Your task to perform on an android device: add a contact Image 0: 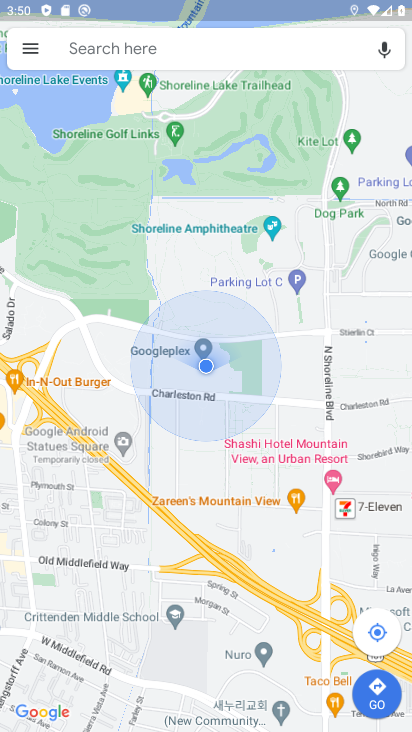
Step 0: press home button
Your task to perform on an android device: add a contact Image 1: 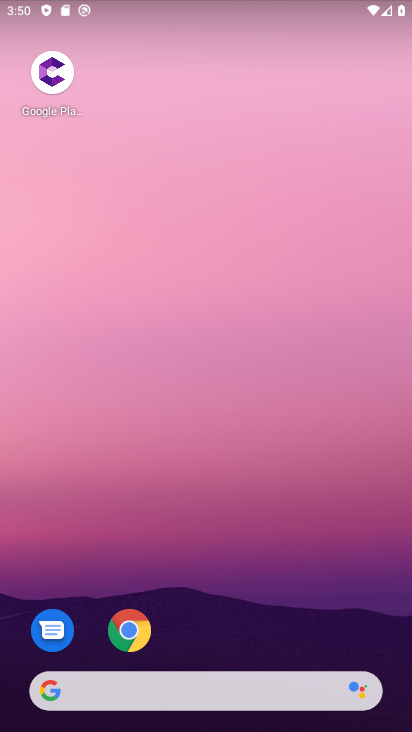
Step 1: drag from (219, 722) to (229, 224)
Your task to perform on an android device: add a contact Image 2: 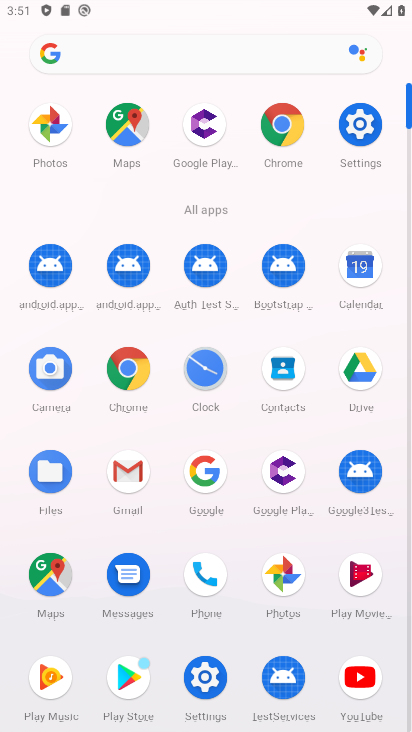
Step 2: click (277, 368)
Your task to perform on an android device: add a contact Image 3: 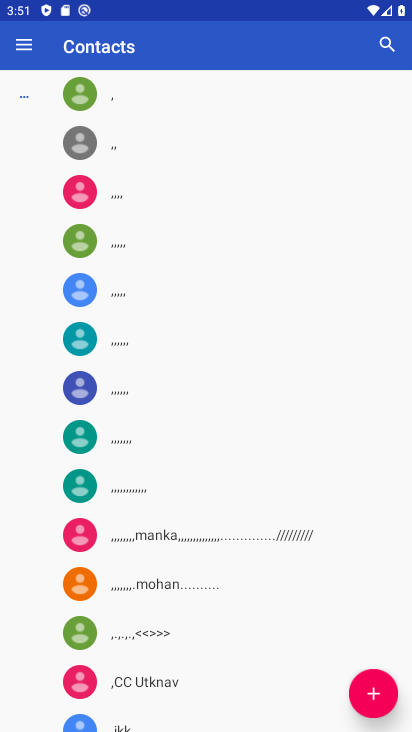
Step 3: click (370, 694)
Your task to perform on an android device: add a contact Image 4: 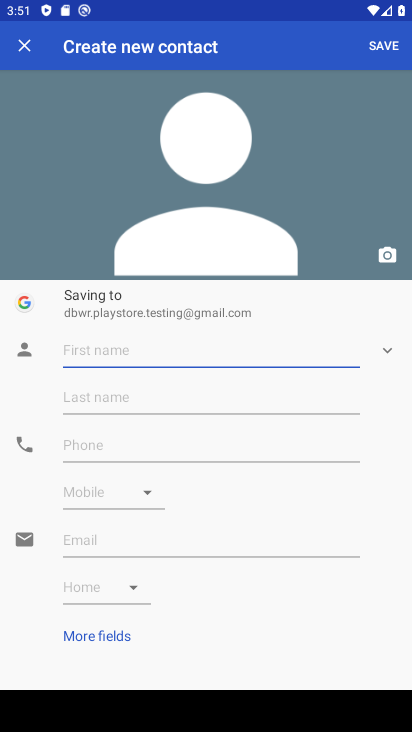
Step 4: type "nkk lo"
Your task to perform on an android device: add a contact Image 5: 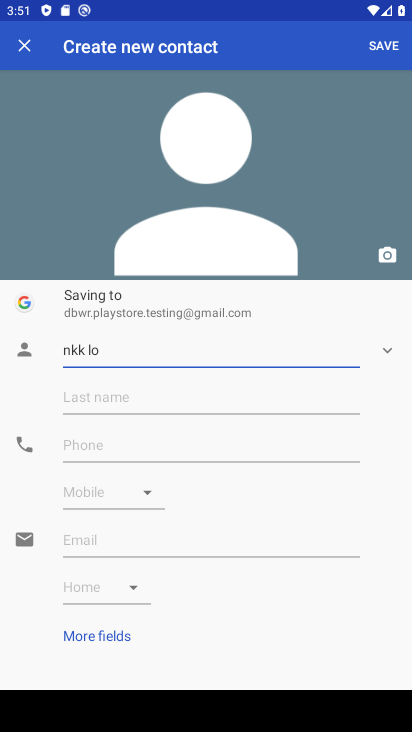
Step 5: click (93, 439)
Your task to perform on an android device: add a contact Image 6: 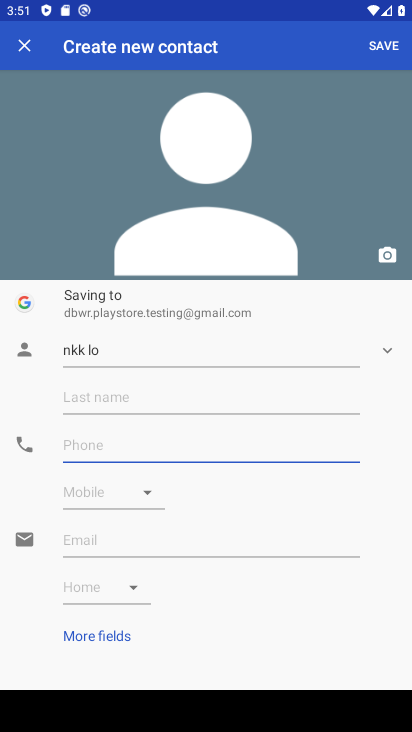
Step 6: type "877665"
Your task to perform on an android device: add a contact Image 7: 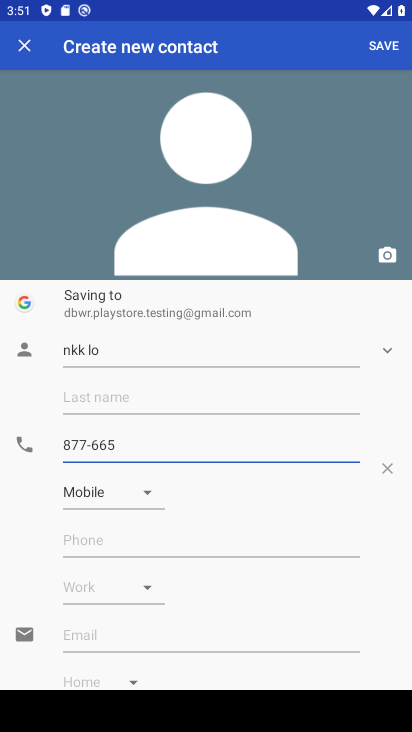
Step 7: click (385, 44)
Your task to perform on an android device: add a contact Image 8: 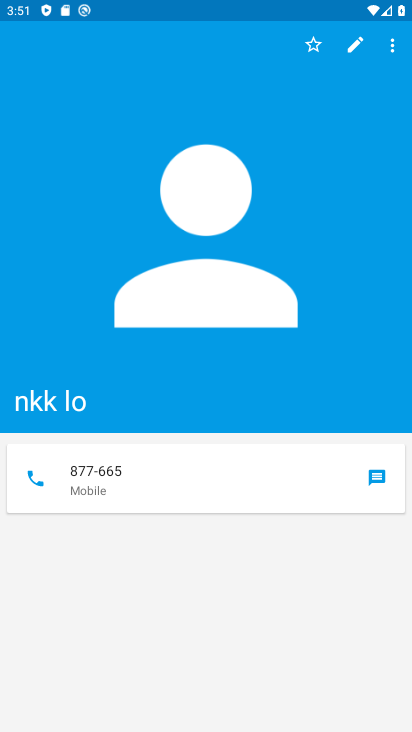
Step 8: task complete